Your task to perform on an android device: set the stopwatch Image 0: 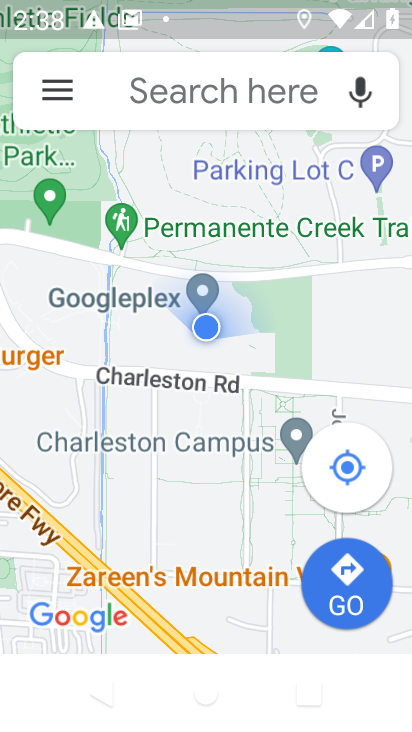
Step 0: press home button
Your task to perform on an android device: set the stopwatch Image 1: 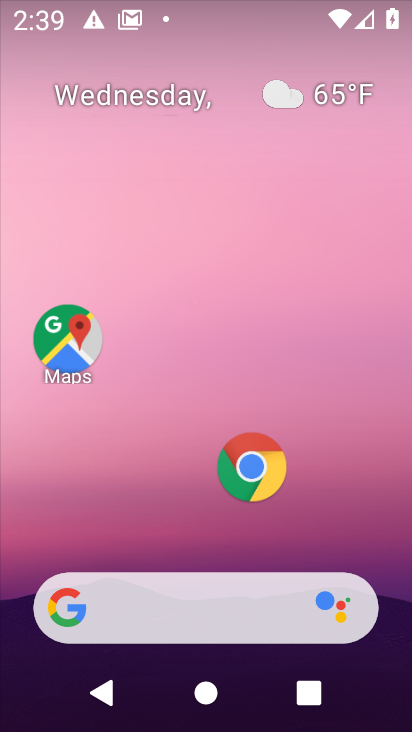
Step 1: task complete